Your task to perform on an android device: Open network settings Image 0: 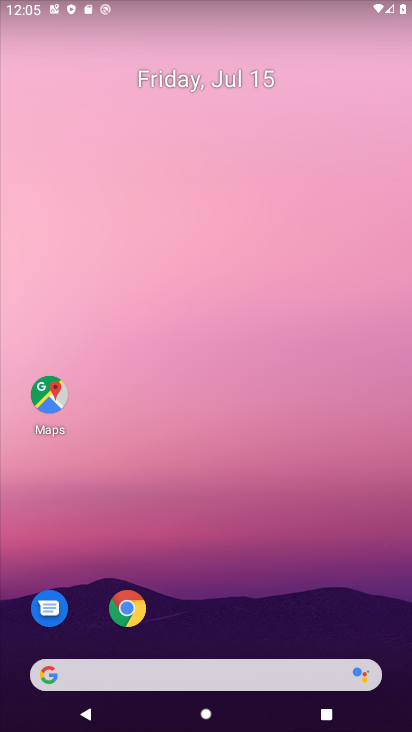
Step 0: drag from (256, 625) to (176, 23)
Your task to perform on an android device: Open network settings Image 1: 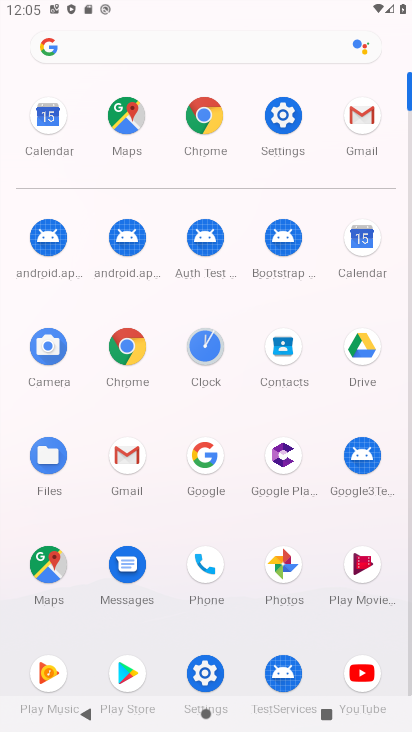
Step 1: click (266, 120)
Your task to perform on an android device: Open network settings Image 2: 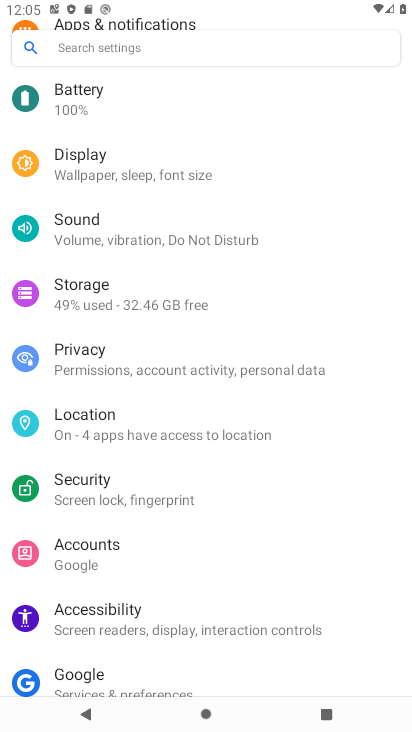
Step 2: drag from (162, 167) to (151, 670)
Your task to perform on an android device: Open network settings Image 3: 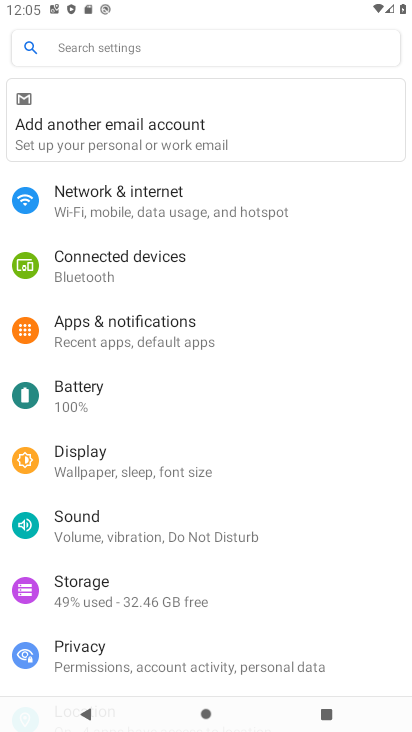
Step 3: click (154, 208)
Your task to perform on an android device: Open network settings Image 4: 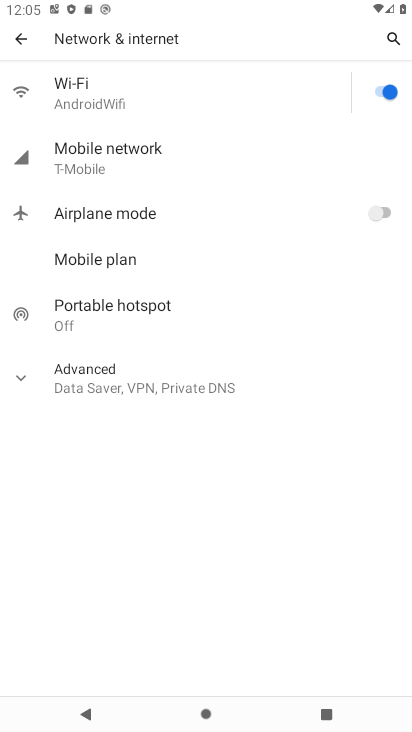
Step 4: task complete